Your task to perform on an android device: Open Chrome and go to settings Image 0: 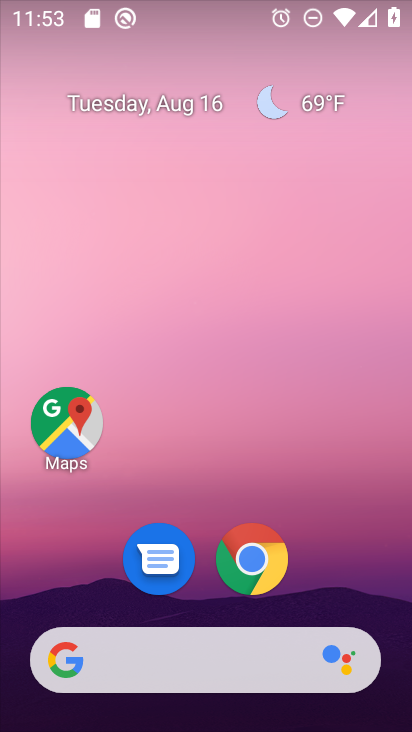
Step 0: click (256, 563)
Your task to perform on an android device: Open Chrome and go to settings Image 1: 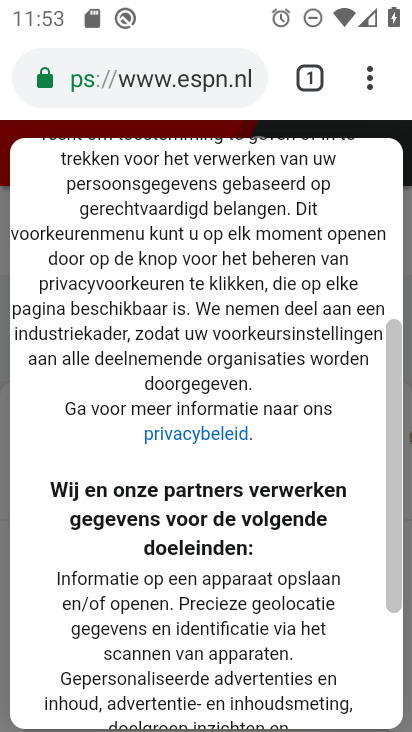
Step 1: click (389, 88)
Your task to perform on an android device: Open Chrome and go to settings Image 2: 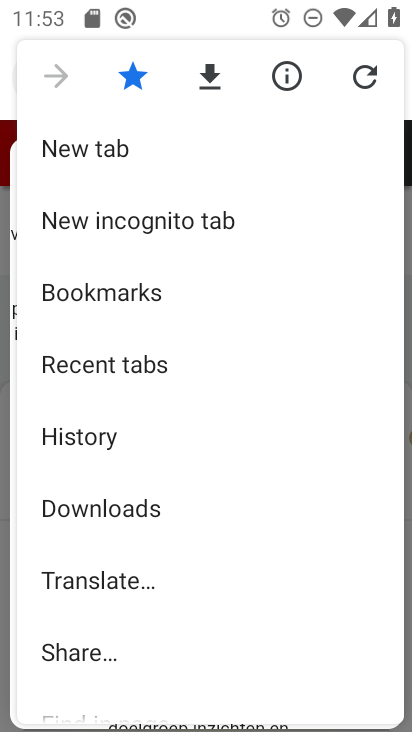
Step 2: drag from (120, 556) to (161, 459)
Your task to perform on an android device: Open Chrome and go to settings Image 3: 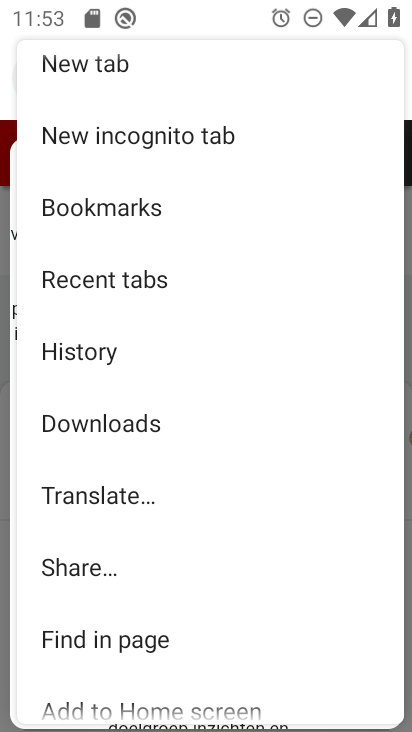
Step 3: drag from (97, 595) to (167, 495)
Your task to perform on an android device: Open Chrome and go to settings Image 4: 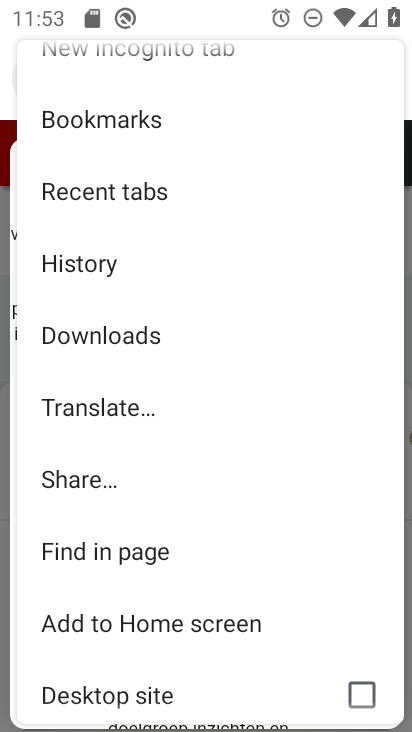
Step 4: drag from (119, 595) to (199, 490)
Your task to perform on an android device: Open Chrome and go to settings Image 5: 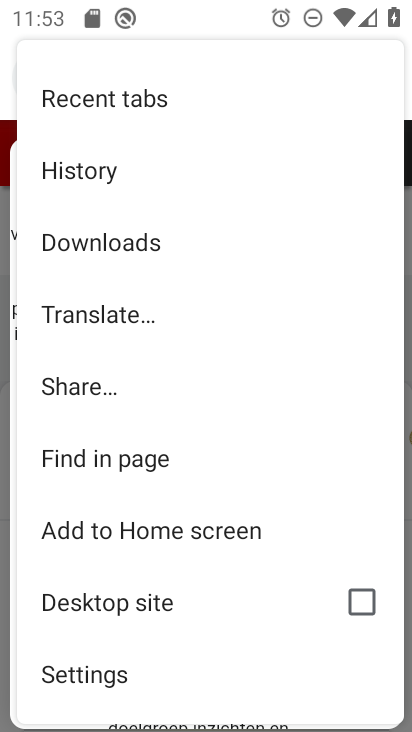
Step 5: drag from (95, 647) to (176, 531)
Your task to perform on an android device: Open Chrome and go to settings Image 6: 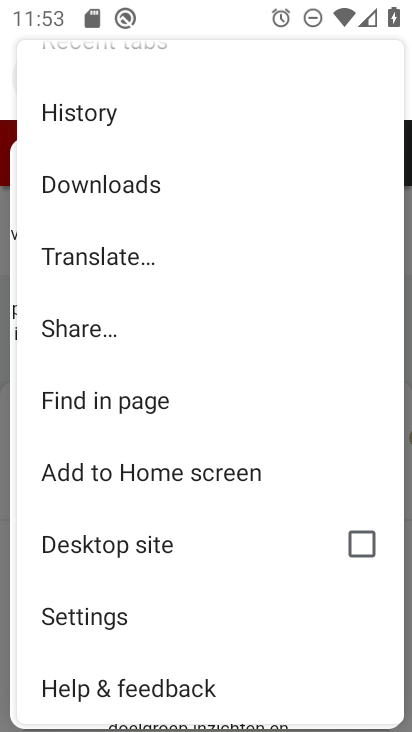
Step 6: click (85, 617)
Your task to perform on an android device: Open Chrome and go to settings Image 7: 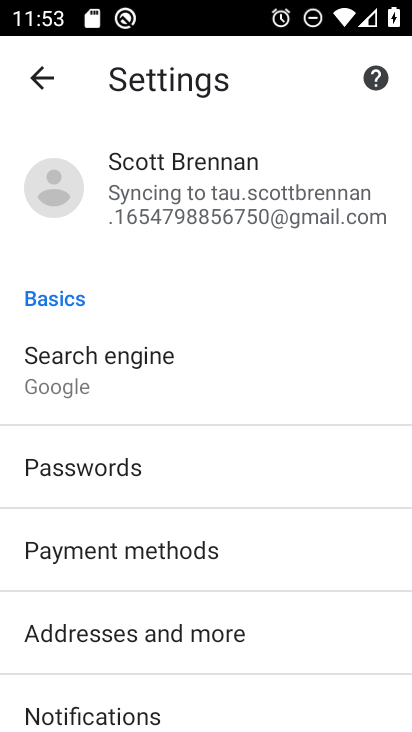
Step 7: task complete